Your task to perform on an android device: star an email in the gmail app Image 0: 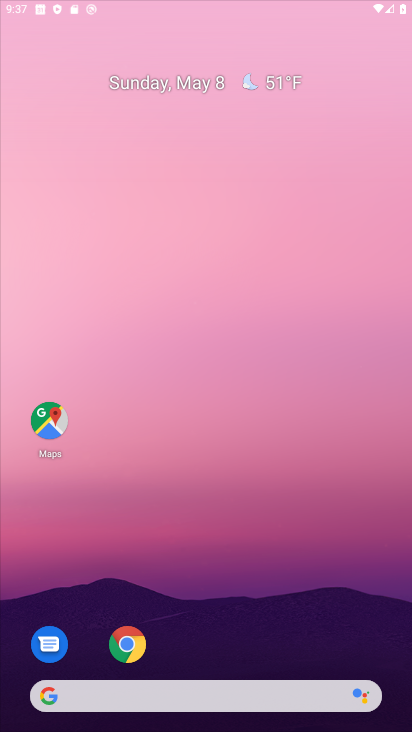
Step 0: click (182, 248)
Your task to perform on an android device: star an email in the gmail app Image 1: 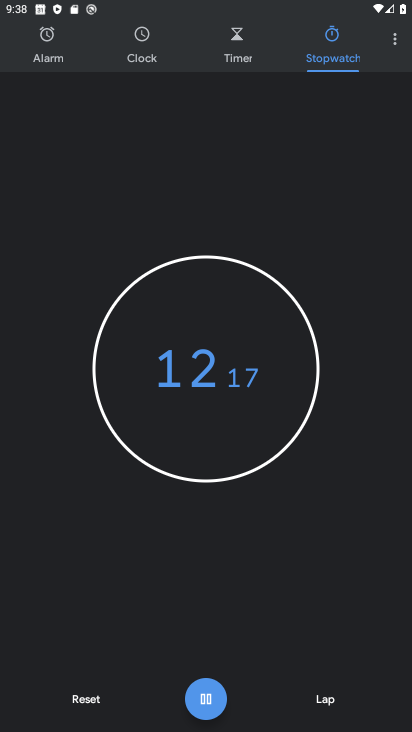
Step 1: drag from (165, 531) to (251, 181)
Your task to perform on an android device: star an email in the gmail app Image 2: 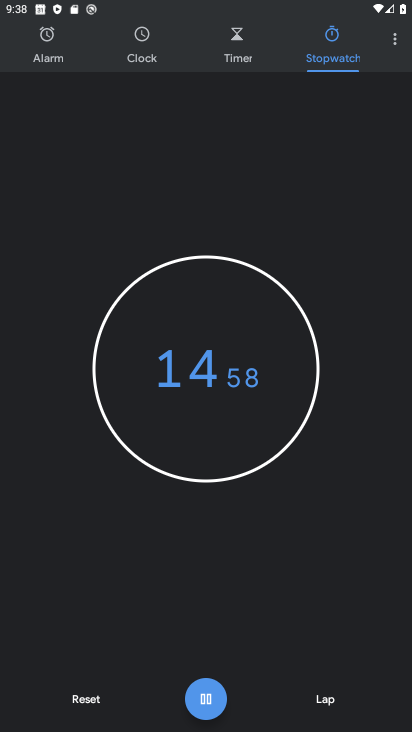
Step 2: press home button
Your task to perform on an android device: star an email in the gmail app Image 3: 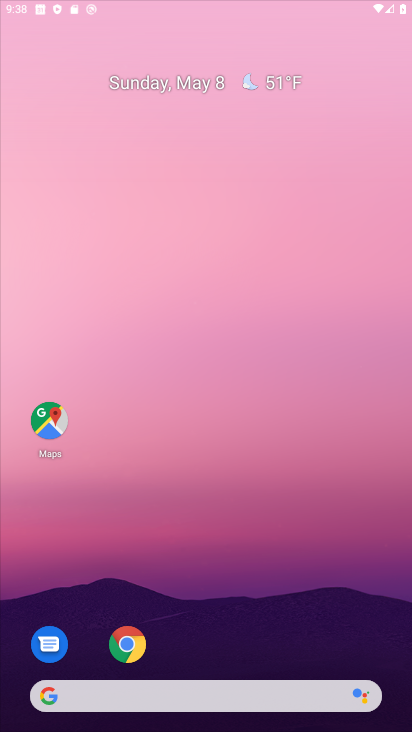
Step 3: drag from (146, 600) to (192, 177)
Your task to perform on an android device: star an email in the gmail app Image 4: 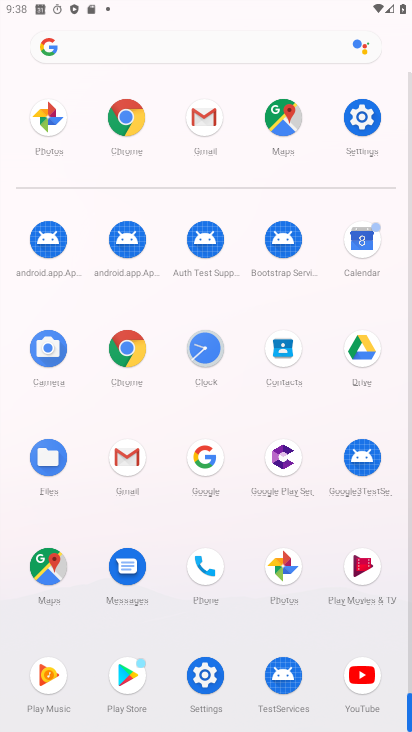
Step 4: click (137, 456)
Your task to perform on an android device: star an email in the gmail app Image 5: 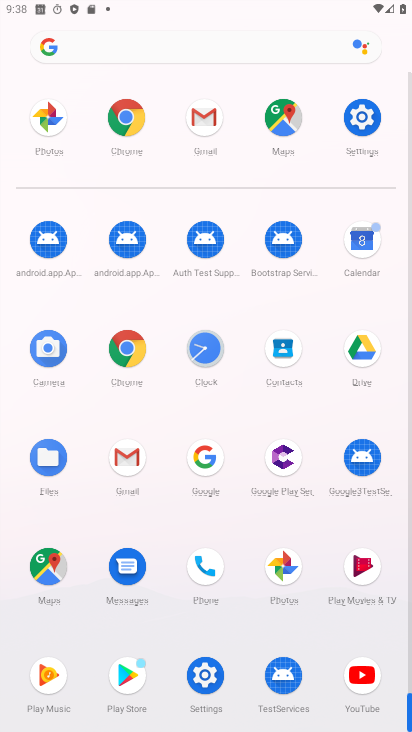
Step 5: click (137, 456)
Your task to perform on an android device: star an email in the gmail app Image 6: 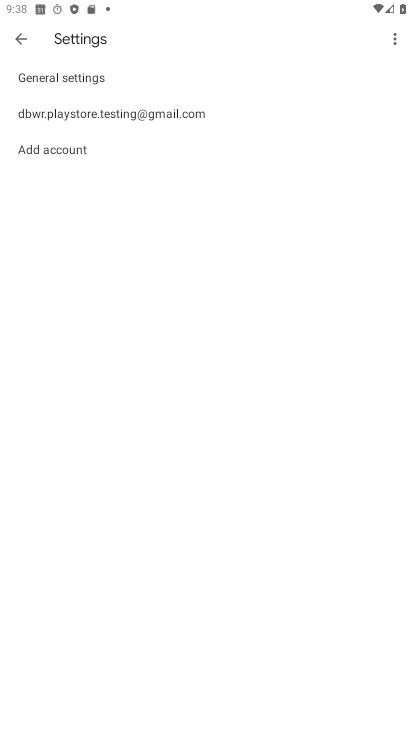
Step 6: click (17, 18)
Your task to perform on an android device: star an email in the gmail app Image 7: 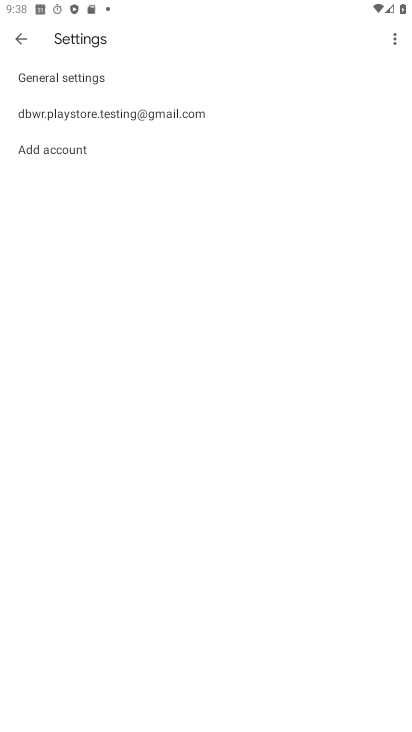
Step 7: click (13, 40)
Your task to perform on an android device: star an email in the gmail app Image 8: 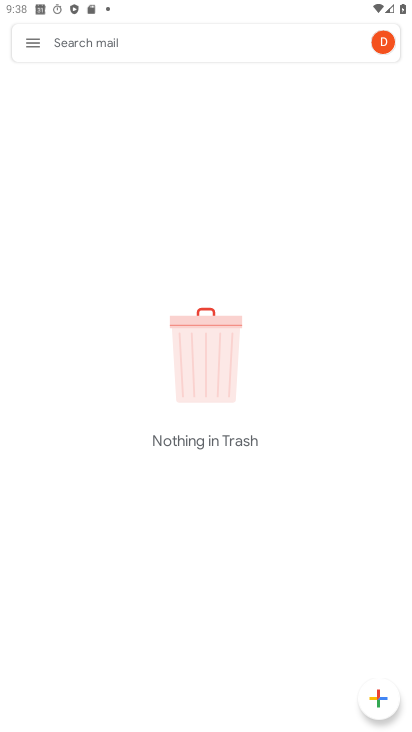
Step 8: click (21, 39)
Your task to perform on an android device: star an email in the gmail app Image 9: 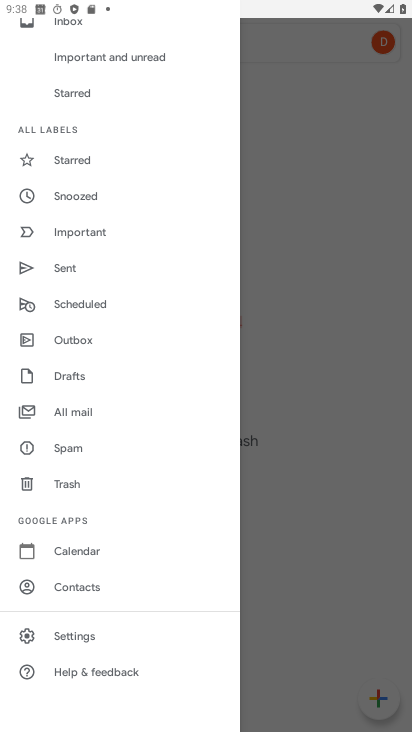
Step 9: drag from (136, 94) to (222, 549)
Your task to perform on an android device: star an email in the gmail app Image 10: 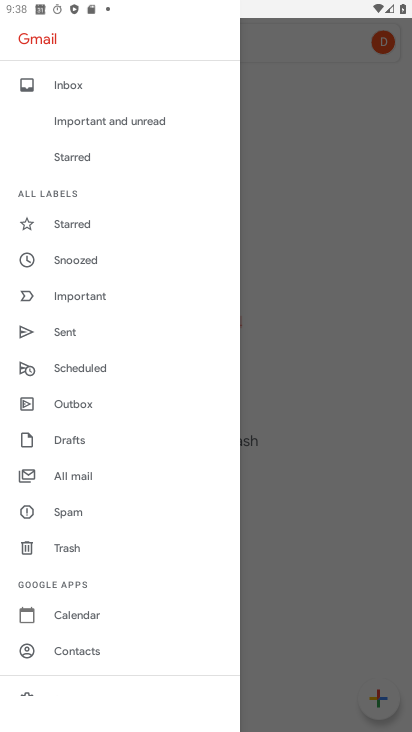
Step 10: click (87, 76)
Your task to perform on an android device: star an email in the gmail app Image 11: 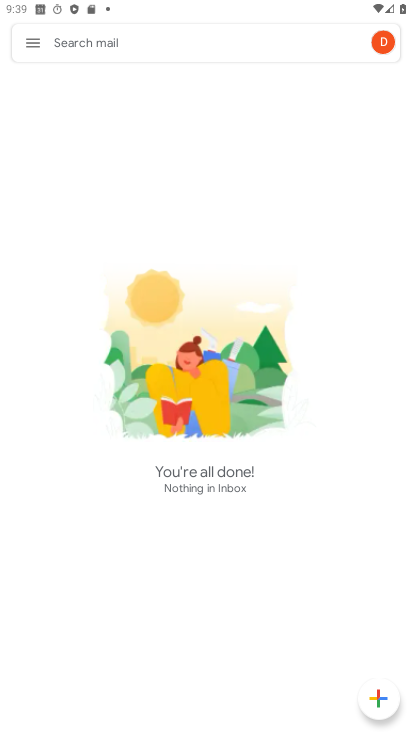
Step 11: task complete